Your task to perform on an android device: Open the calendar app, open the side menu, and click the "Day" option Image 0: 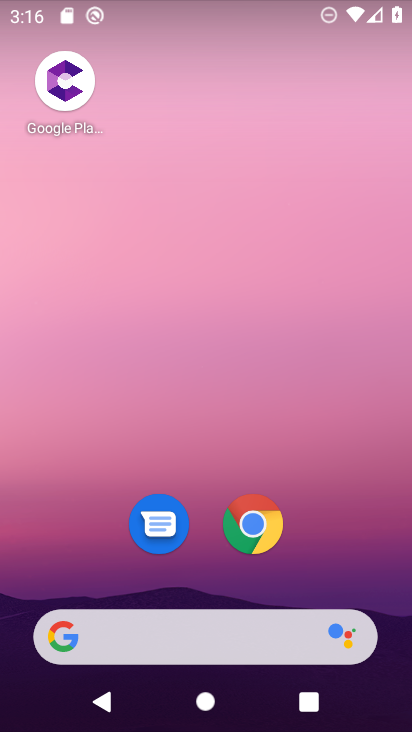
Step 0: drag from (306, 410) to (335, 41)
Your task to perform on an android device: Open the calendar app, open the side menu, and click the "Day" option Image 1: 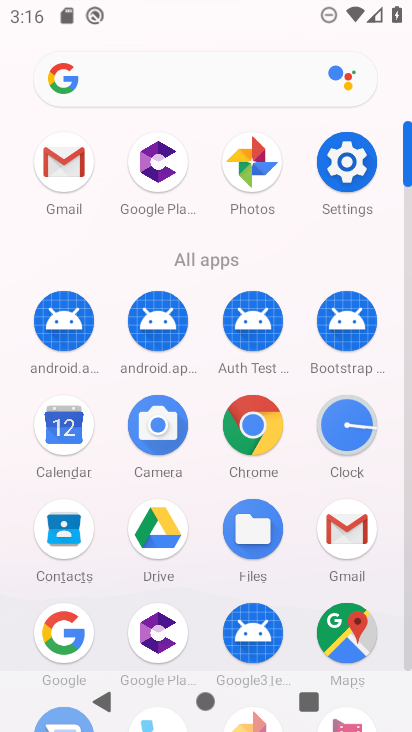
Step 1: click (73, 429)
Your task to perform on an android device: Open the calendar app, open the side menu, and click the "Day" option Image 2: 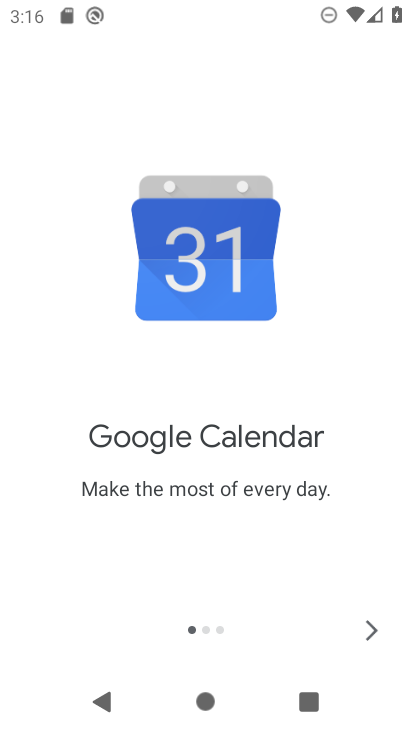
Step 2: click (367, 626)
Your task to perform on an android device: Open the calendar app, open the side menu, and click the "Day" option Image 3: 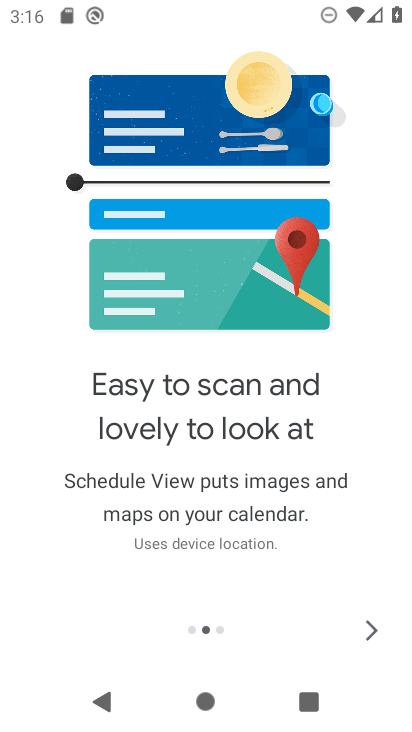
Step 3: click (367, 626)
Your task to perform on an android device: Open the calendar app, open the side menu, and click the "Day" option Image 4: 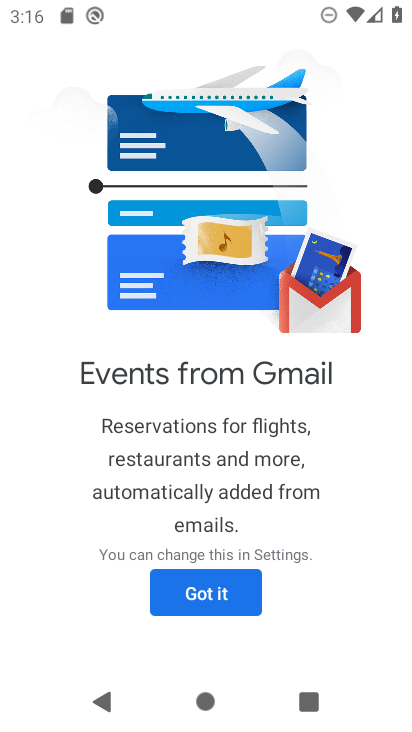
Step 4: click (243, 594)
Your task to perform on an android device: Open the calendar app, open the side menu, and click the "Day" option Image 5: 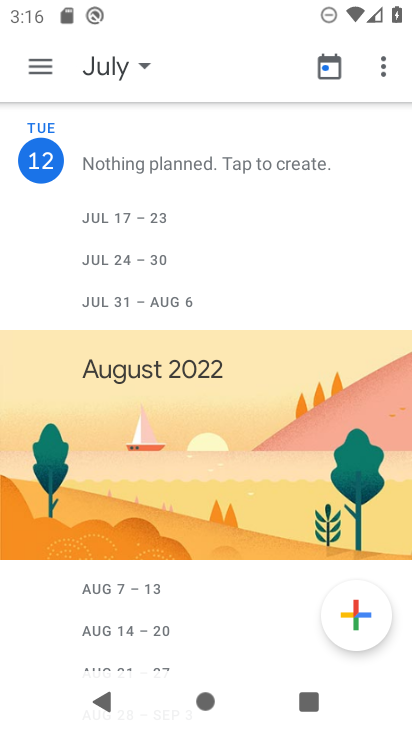
Step 5: click (43, 61)
Your task to perform on an android device: Open the calendar app, open the side menu, and click the "Day" option Image 6: 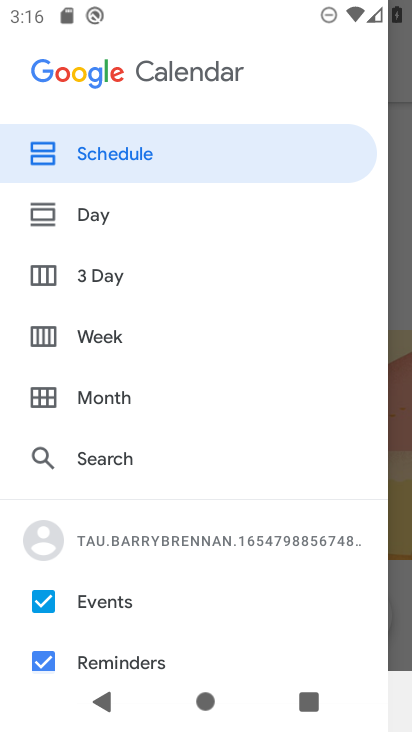
Step 6: click (40, 206)
Your task to perform on an android device: Open the calendar app, open the side menu, and click the "Day" option Image 7: 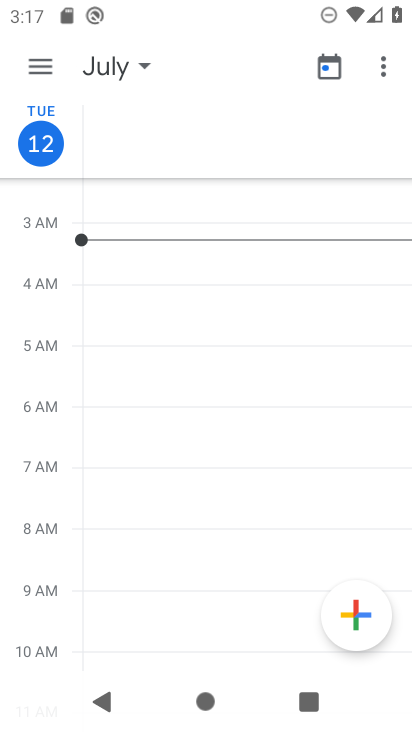
Step 7: task complete